Your task to perform on an android device: make emails show in primary in the gmail app Image 0: 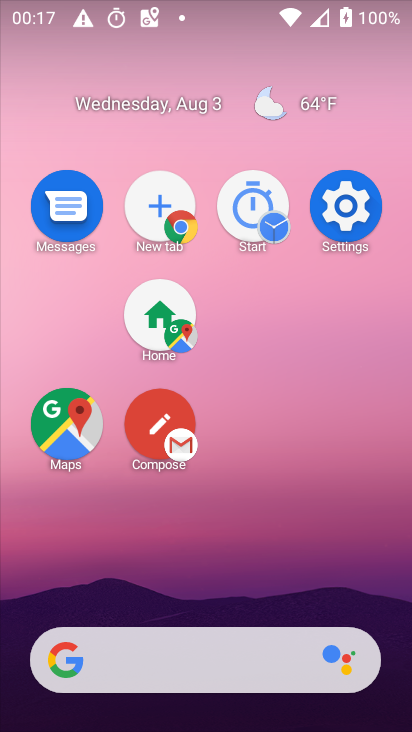
Step 0: click (258, 290)
Your task to perform on an android device: make emails show in primary in the gmail app Image 1: 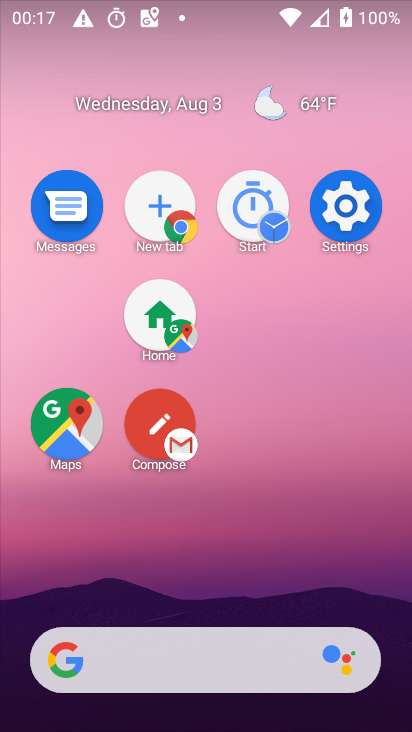
Step 1: drag from (232, 501) to (232, 122)
Your task to perform on an android device: make emails show in primary in the gmail app Image 2: 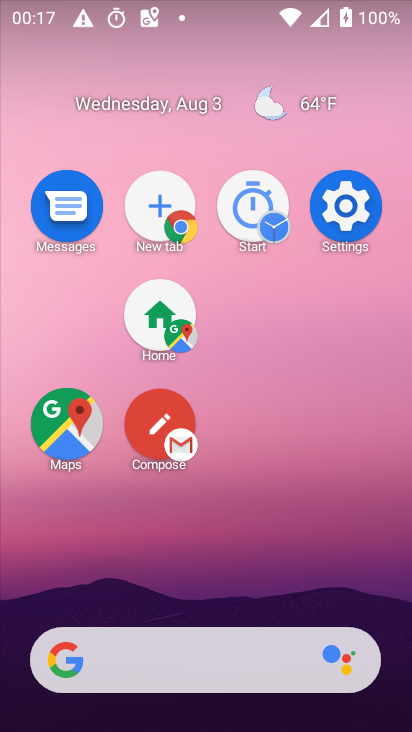
Step 2: drag from (174, 438) to (174, 215)
Your task to perform on an android device: make emails show in primary in the gmail app Image 3: 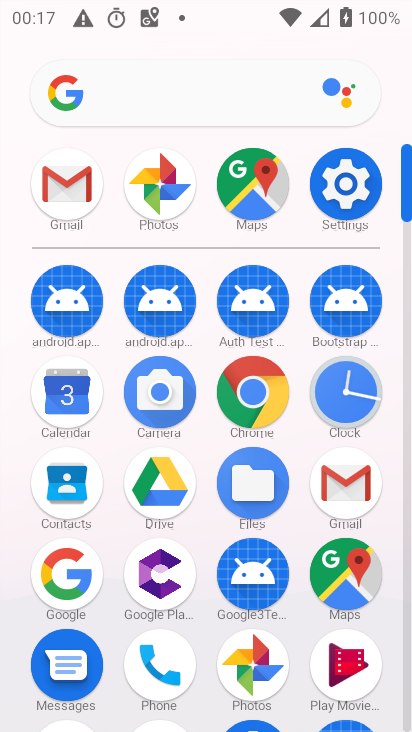
Step 3: drag from (171, 513) to (177, 281)
Your task to perform on an android device: make emails show in primary in the gmail app Image 4: 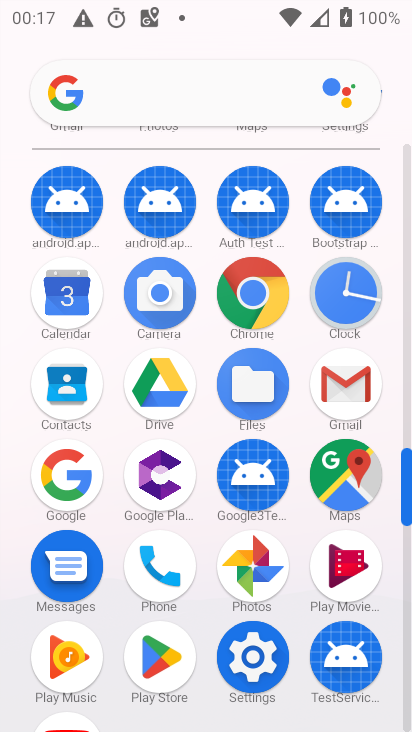
Step 4: click (348, 366)
Your task to perform on an android device: make emails show in primary in the gmail app Image 5: 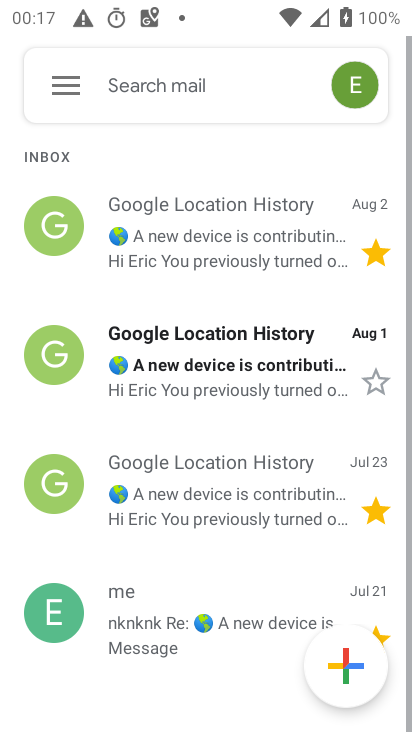
Step 5: click (82, 91)
Your task to perform on an android device: make emails show in primary in the gmail app Image 6: 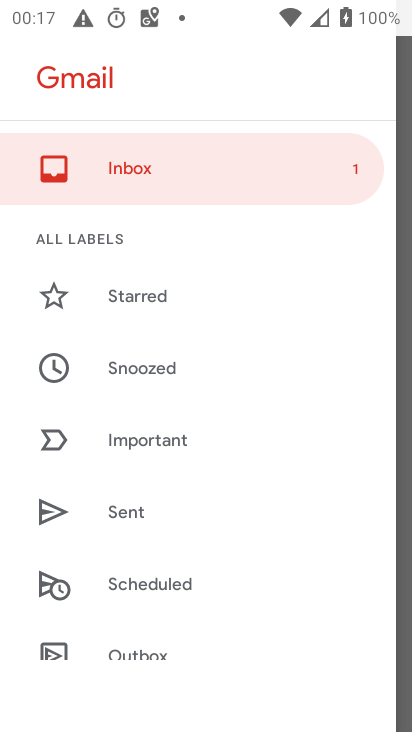
Step 6: drag from (146, 610) to (145, 156)
Your task to perform on an android device: make emails show in primary in the gmail app Image 7: 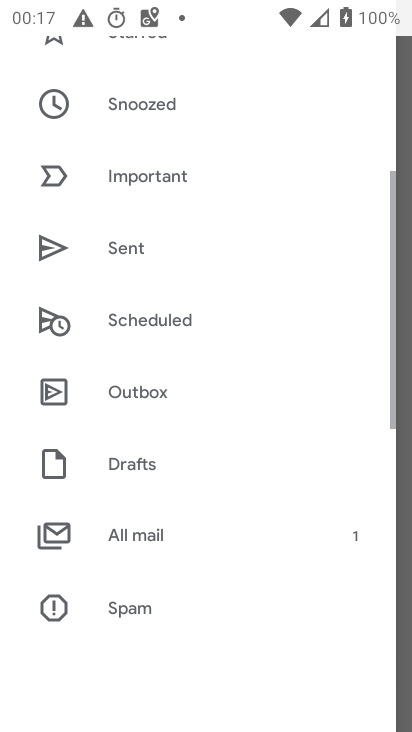
Step 7: drag from (130, 462) to (130, 204)
Your task to perform on an android device: make emails show in primary in the gmail app Image 8: 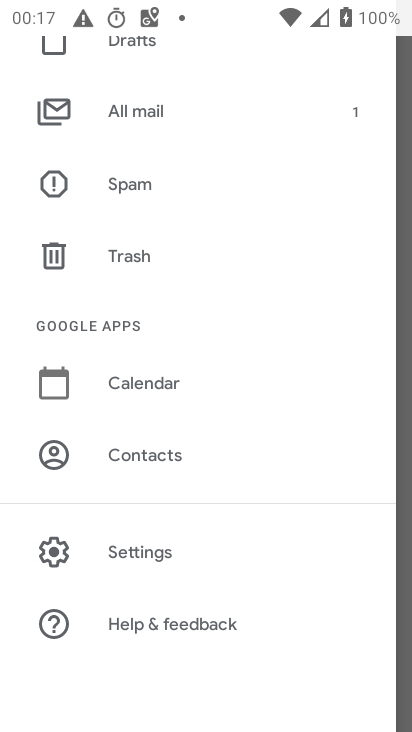
Step 8: click (142, 554)
Your task to perform on an android device: make emails show in primary in the gmail app Image 9: 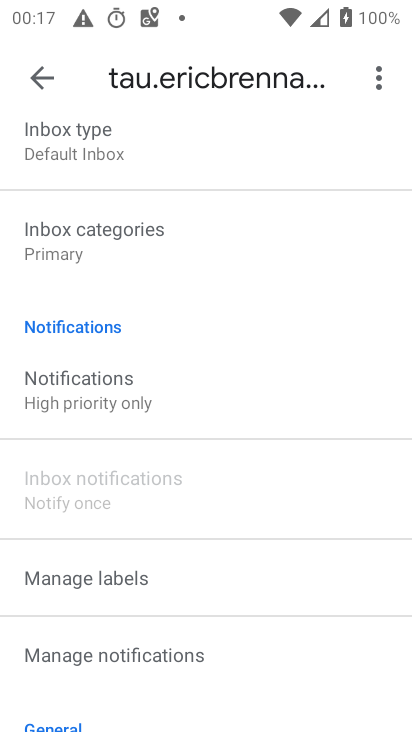
Step 9: task complete